Your task to perform on an android device: toggle wifi Image 0: 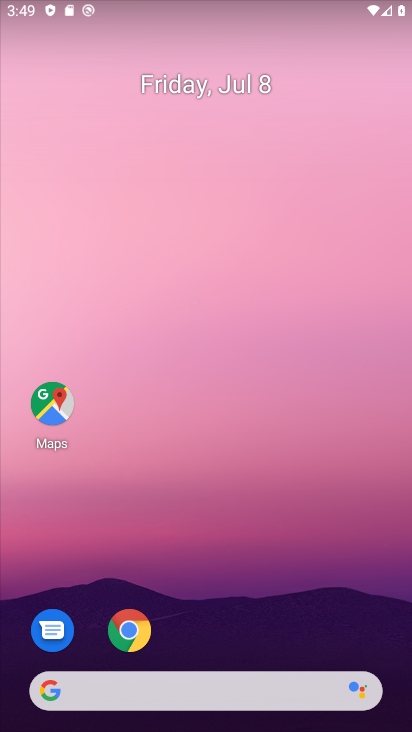
Step 0: drag from (75, 651) to (313, 10)
Your task to perform on an android device: toggle wifi Image 1: 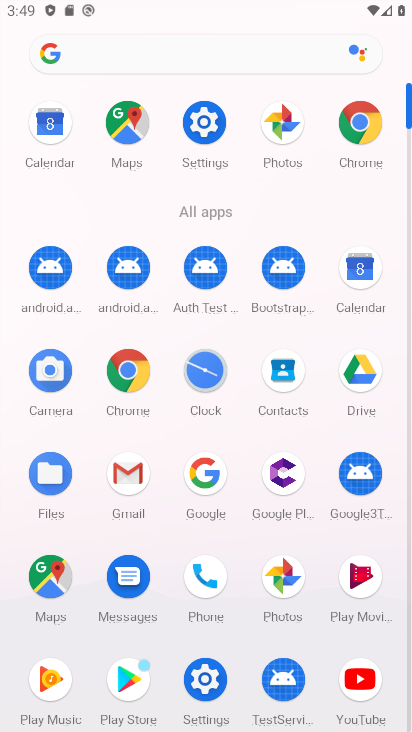
Step 1: click (205, 694)
Your task to perform on an android device: toggle wifi Image 2: 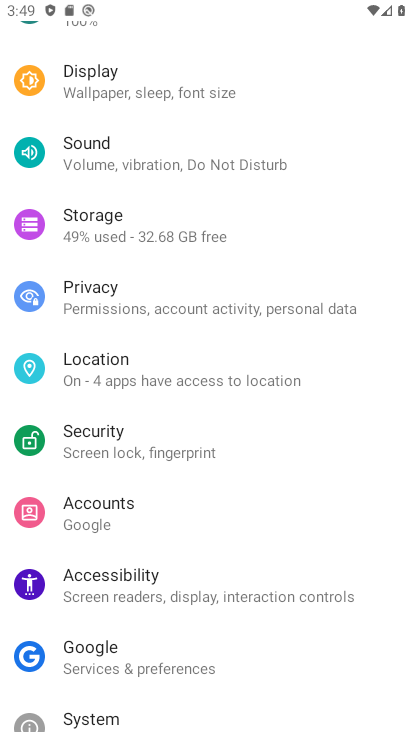
Step 2: drag from (208, 66) to (217, 731)
Your task to perform on an android device: toggle wifi Image 3: 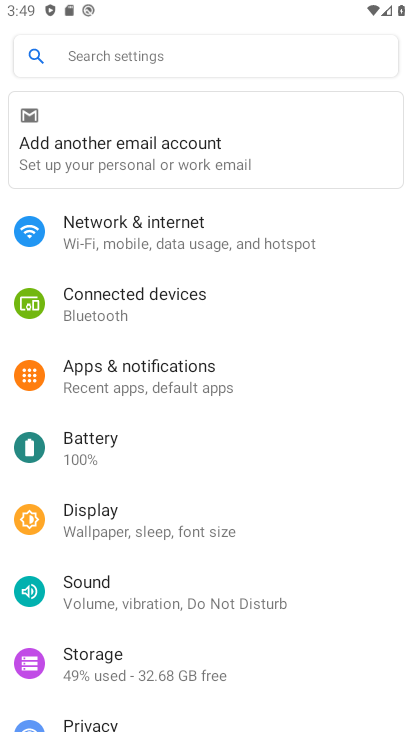
Step 3: click (207, 240)
Your task to perform on an android device: toggle wifi Image 4: 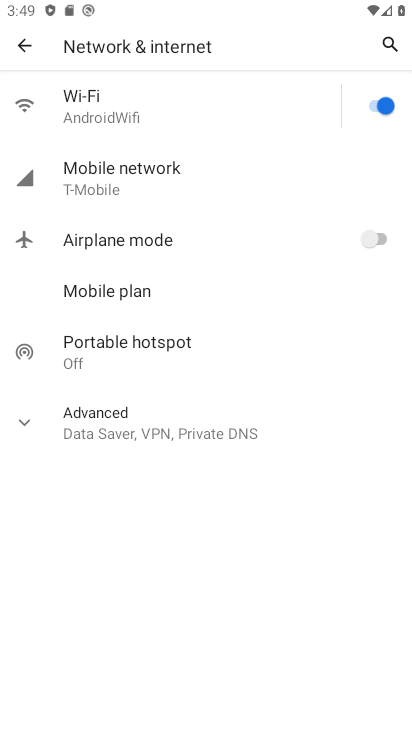
Step 4: task complete